Your task to perform on an android device: Is it going to rain today? Image 0: 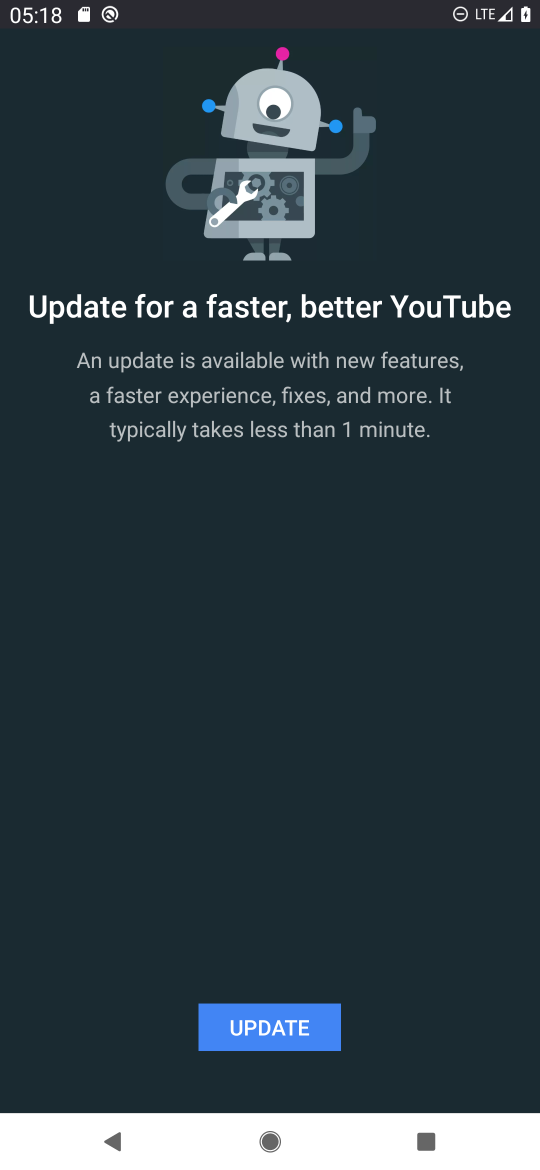
Step 0: press home button
Your task to perform on an android device: Is it going to rain today? Image 1: 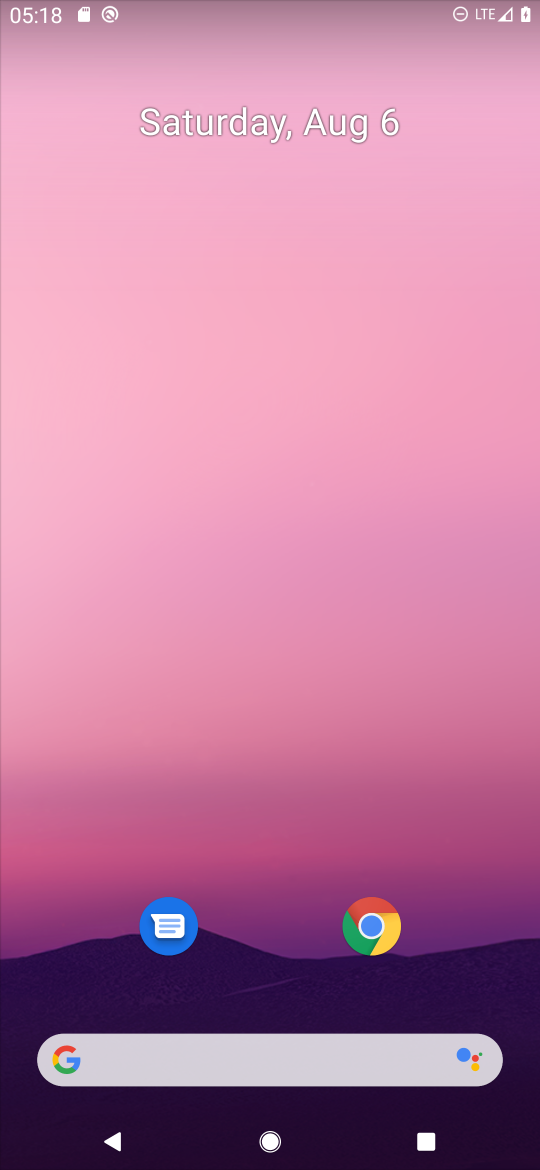
Step 1: drag from (260, 932) to (274, 280)
Your task to perform on an android device: Is it going to rain today? Image 2: 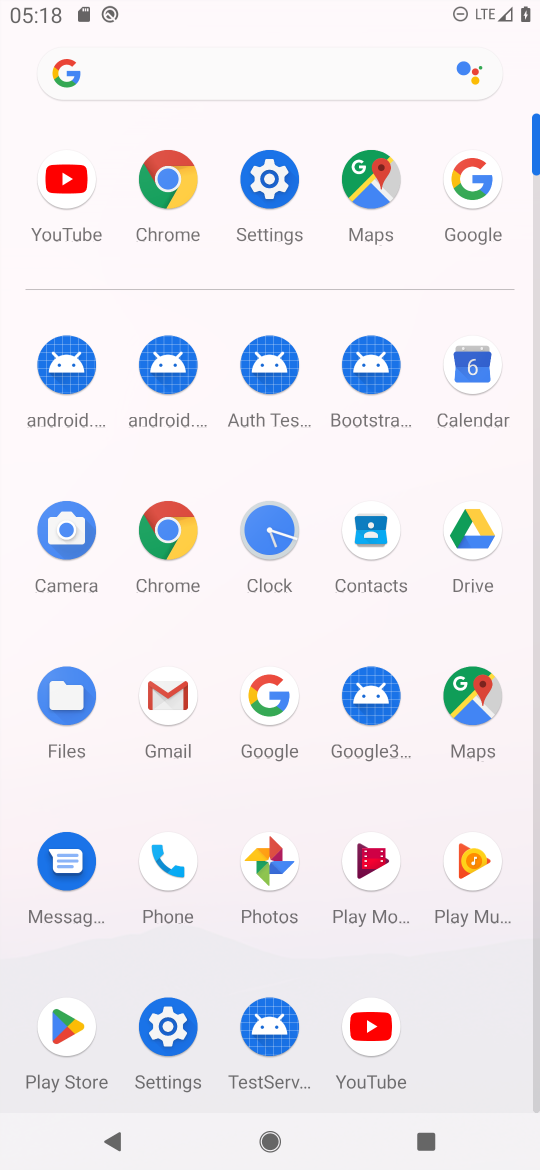
Step 2: click (456, 190)
Your task to perform on an android device: Is it going to rain today? Image 3: 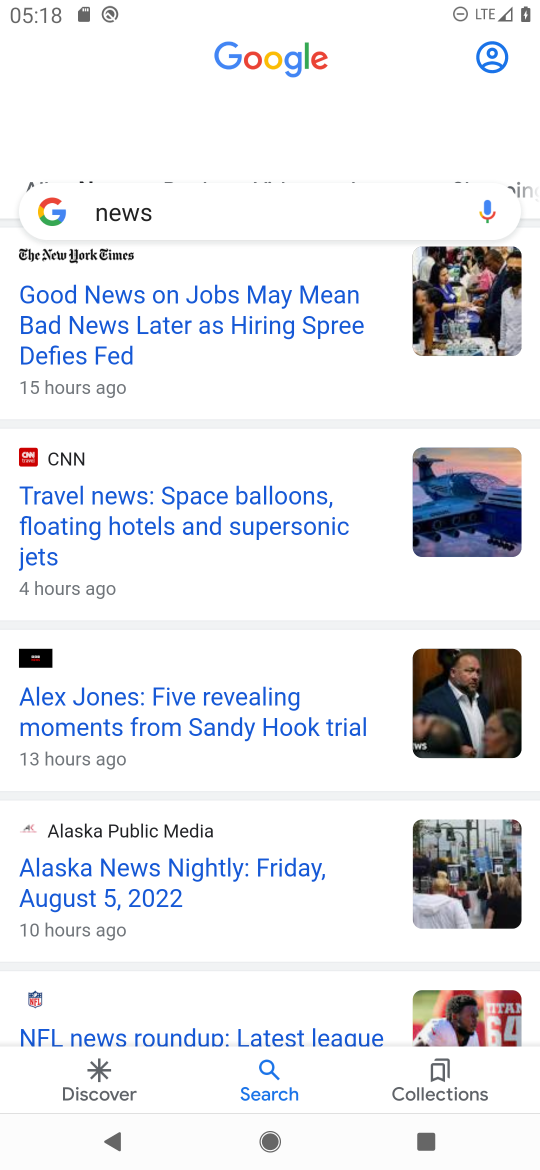
Step 3: click (208, 194)
Your task to perform on an android device: Is it going to rain today? Image 4: 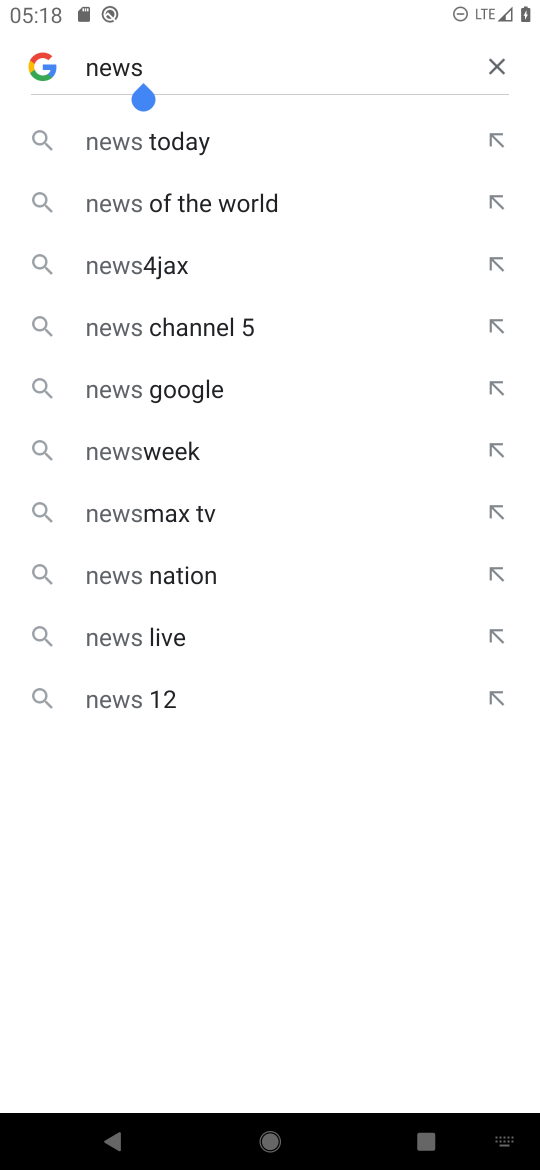
Step 4: click (488, 46)
Your task to perform on an android device: Is it going to rain today? Image 5: 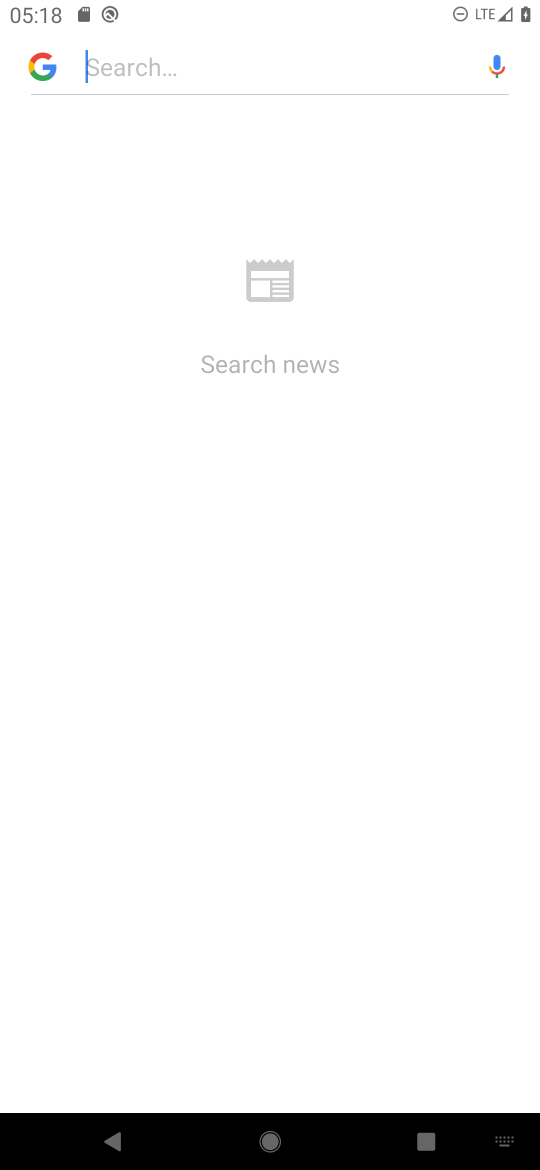
Step 5: type "weather"
Your task to perform on an android device: Is it going to rain today? Image 6: 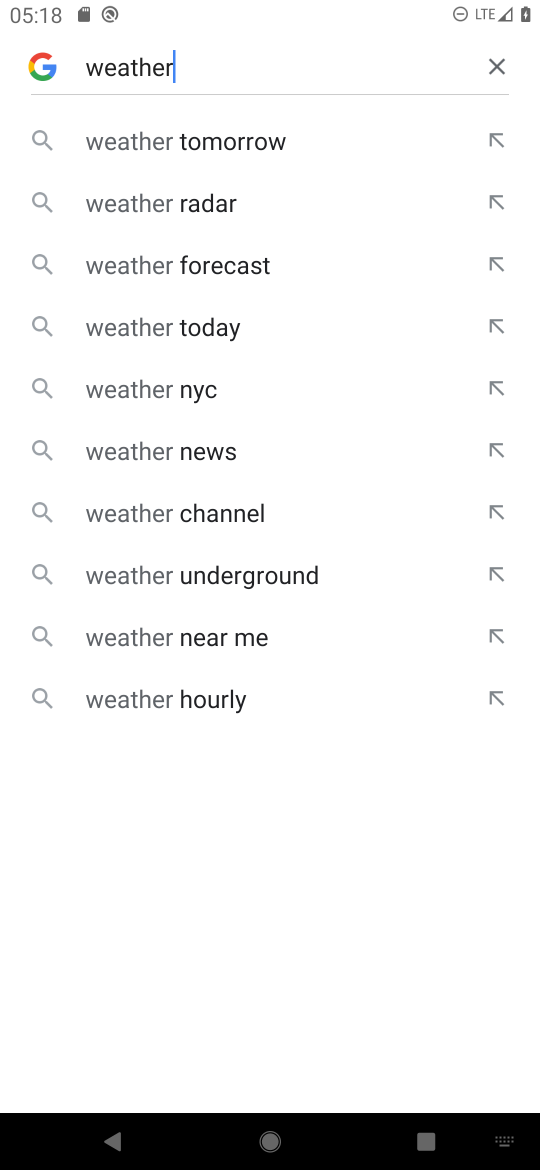
Step 6: click (246, 319)
Your task to perform on an android device: Is it going to rain today? Image 7: 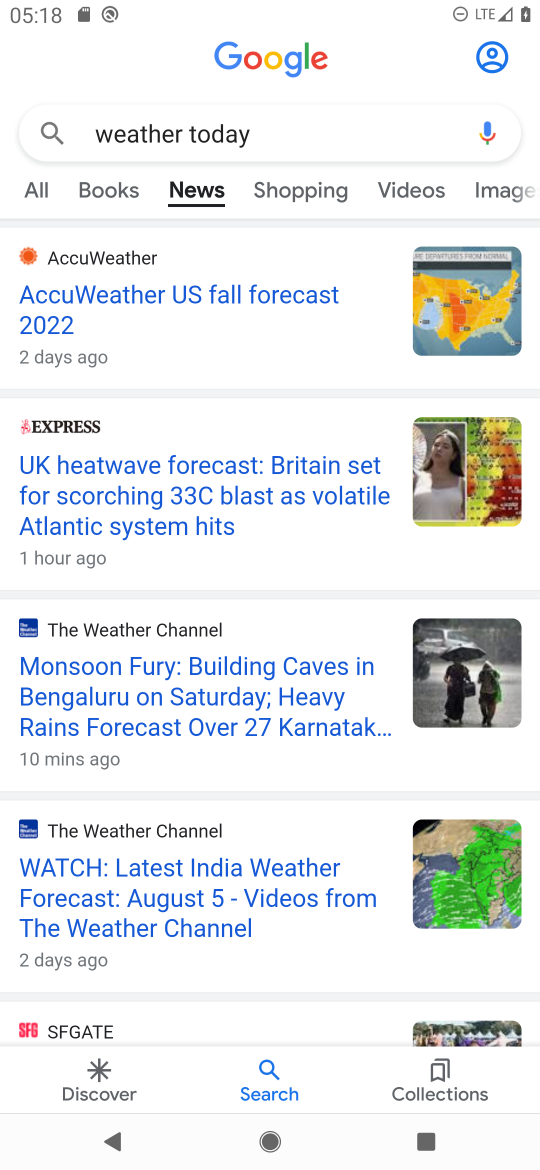
Step 7: click (49, 195)
Your task to perform on an android device: Is it going to rain today? Image 8: 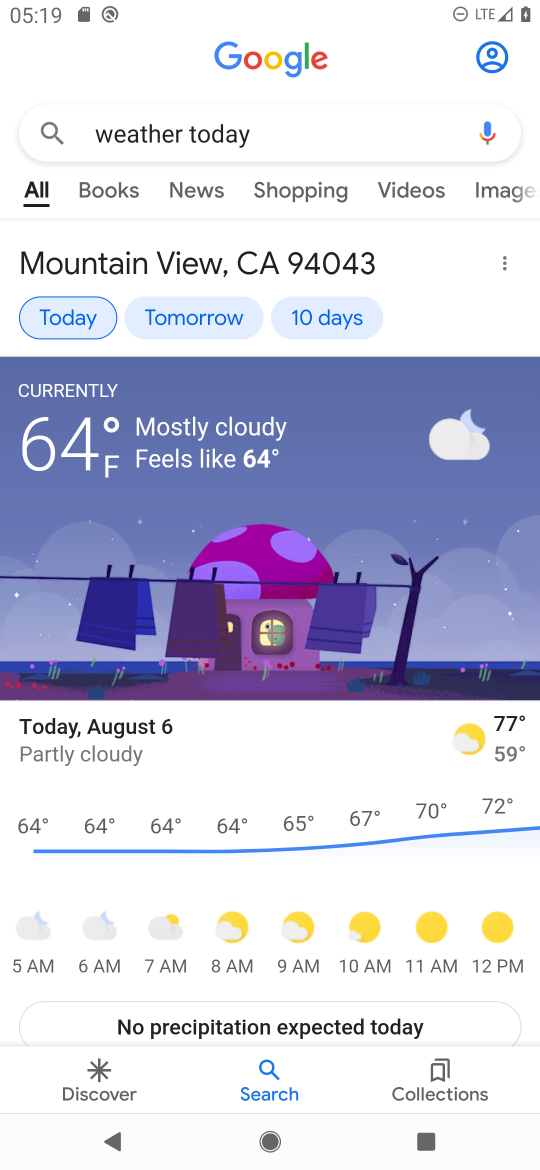
Step 8: task complete